Your task to perform on an android device: Go to wifi settings Image 0: 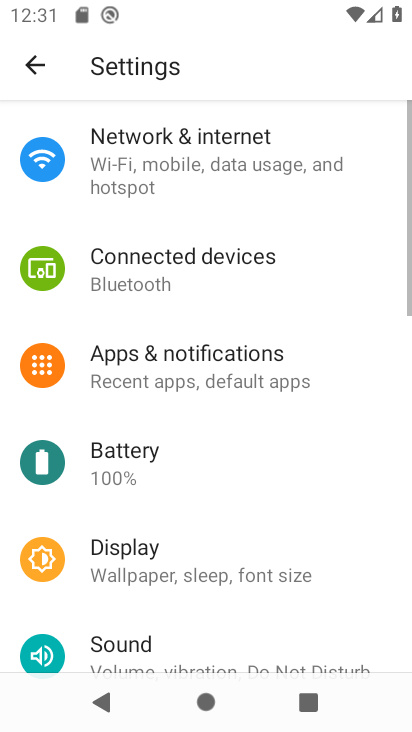
Step 0: press home button
Your task to perform on an android device: Go to wifi settings Image 1: 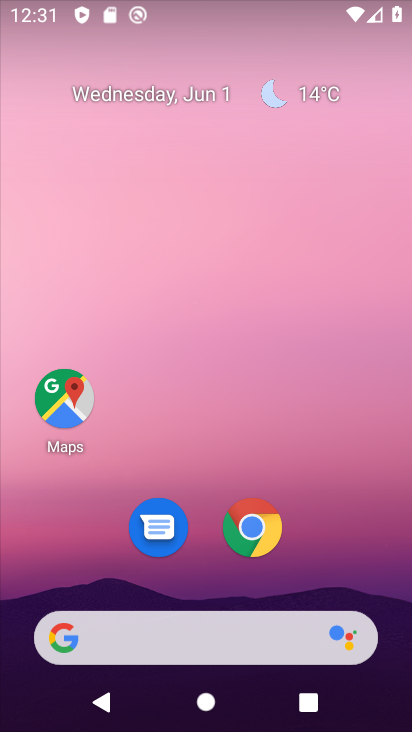
Step 1: drag from (252, 549) to (310, 4)
Your task to perform on an android device: Go to wifi settings Image 2: 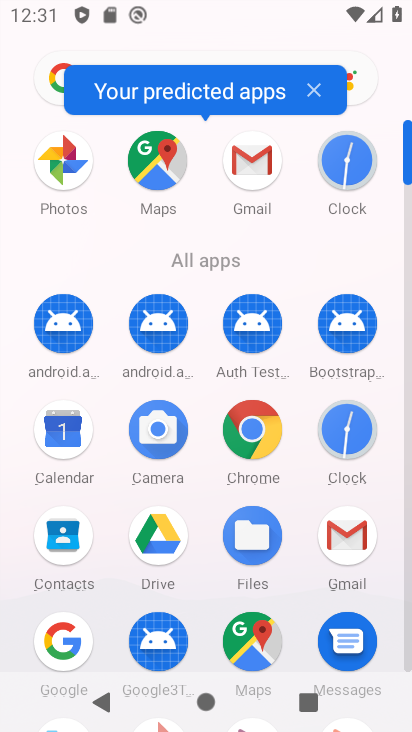
Step 2: drag from (249, 503) to (287, 48)
Your task to perform on an android device: Go to wifi settings Image 3: 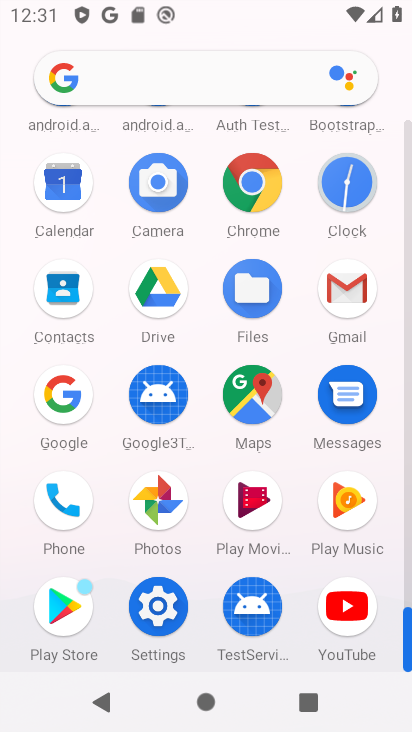
Step 3: click (174, 616)
Your task to perform on an android device: Go to wifi settings Image 4: 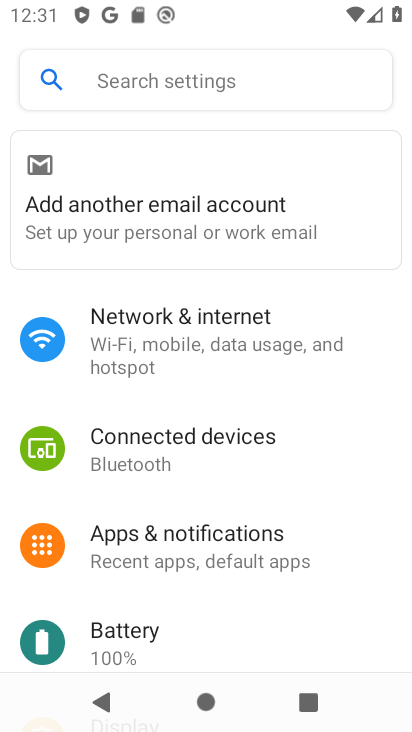
Step 4: click (249, 356)
Your task to perform on an android device: Go to wifi settings Image 5: 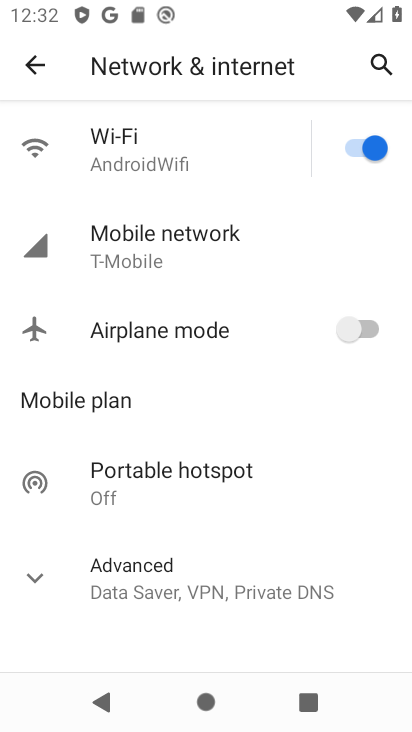
Step 5: click (202, 150)
Your task to perform on an android device: Go to wifi settings Image 6: 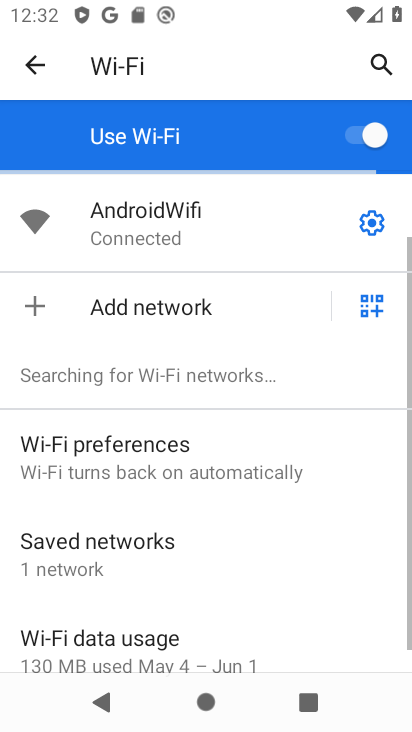
Step 6: task complete